Your task to perform on an android device: toggle airplane mode Image 0: 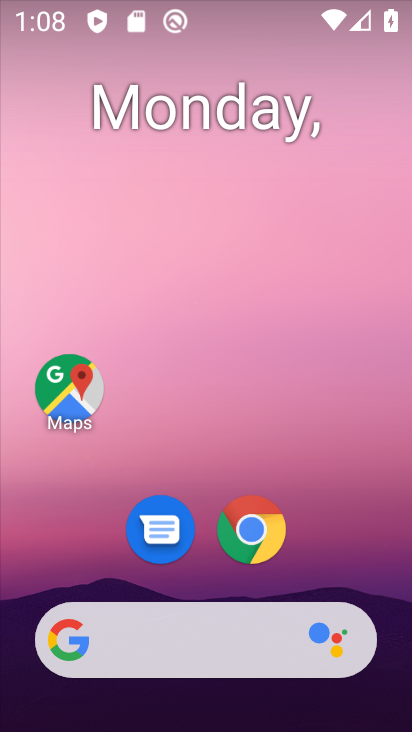
Step 0: drag from (377, 513) to (357, 548)
Your task to perform on an android device: toggle airplane mode Image 1: 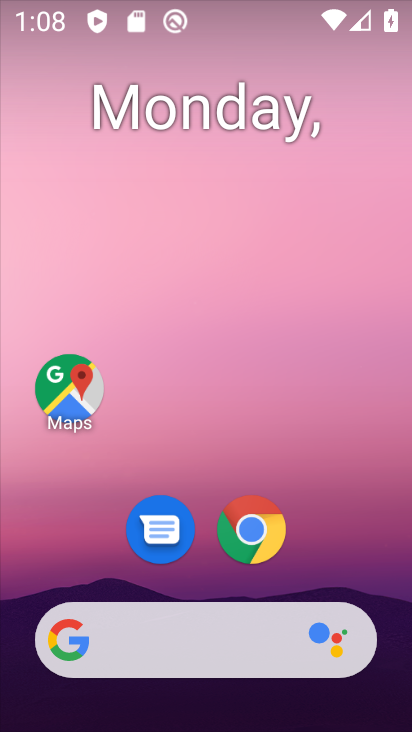
Step 1: drag from (328, 542) to (343, 22)
Your task to perform on an android device: toggle airplane mode Image 2: 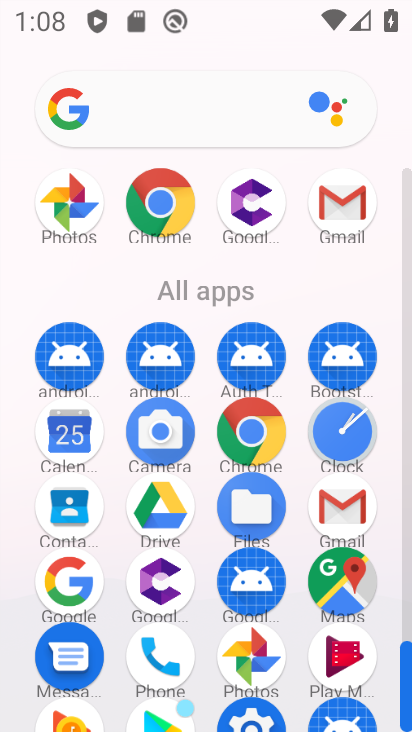
Step 2: drag from (398, 476) to (408, 159)
Your task to perform on an android device: toggle airplane mode Image 3: 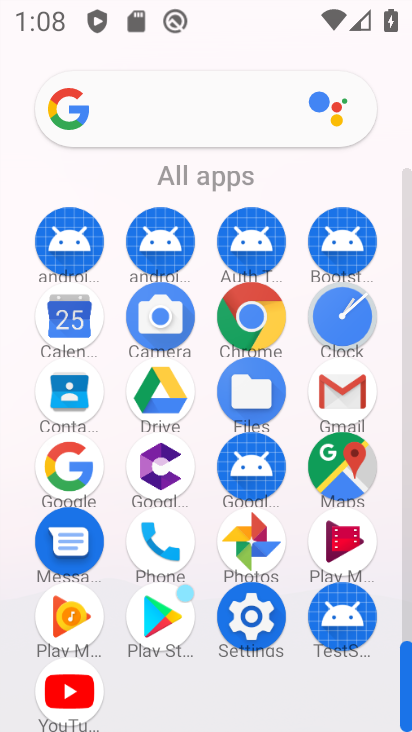
Step 3: click (260, 603)
Your task to perform on an android device: toggle airplane mode Image 4: 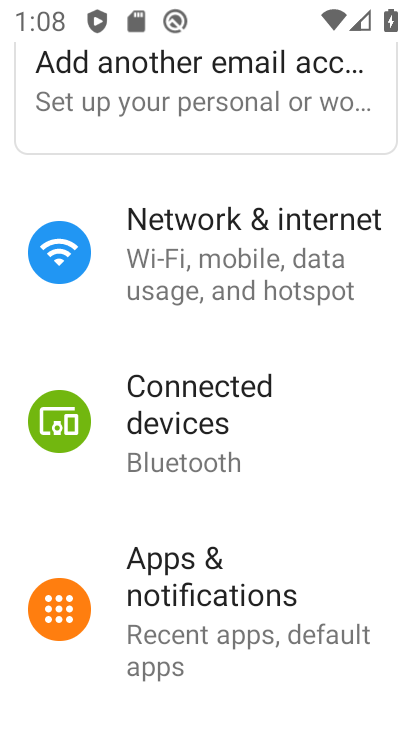
Step 4: drag from (298, 605) to (263, 243)
Your task to perform on an android device: toggle airplane mode Image 5: 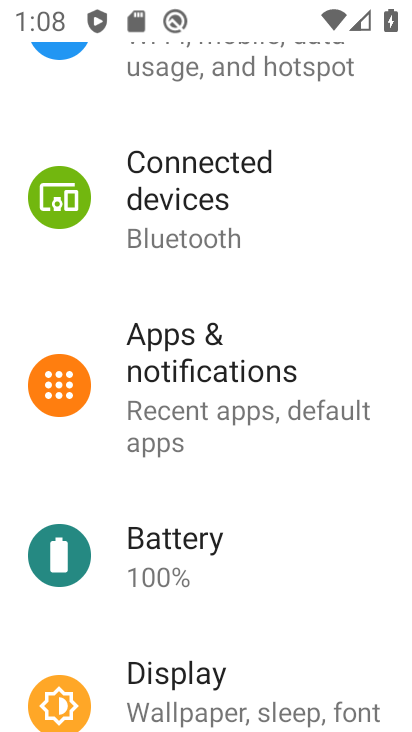
Step 5: drag from (282, 243) to (306, 586)
Your task to perform on an android device: toggle airplane mode Image 6: 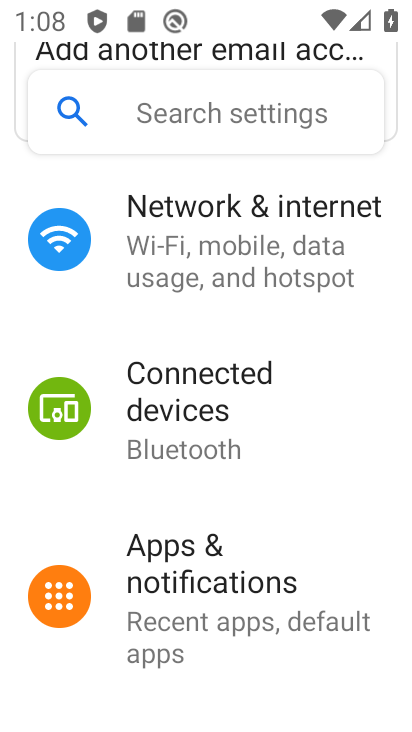
Step 6: click (243, 257)
Your task to perform on an android device: toggle airplane mode Image 7: 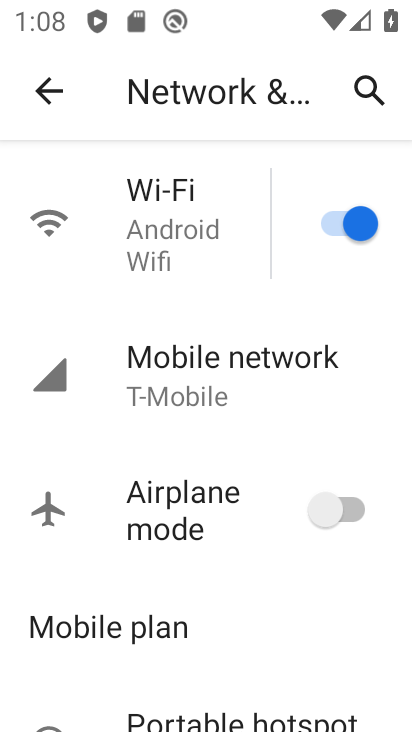
Step 7: click (339, 511)
Your task to perform on an android device: toggle airplane mode Image 8: 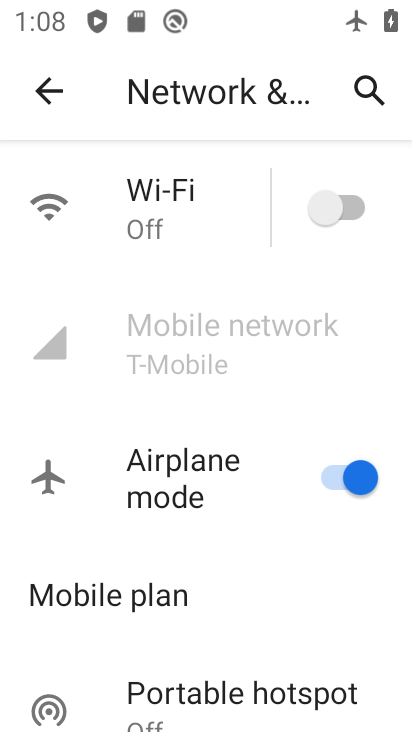
Step 8: task complete